Your task to perform on an android device: open chrome privacy settings Image 0: 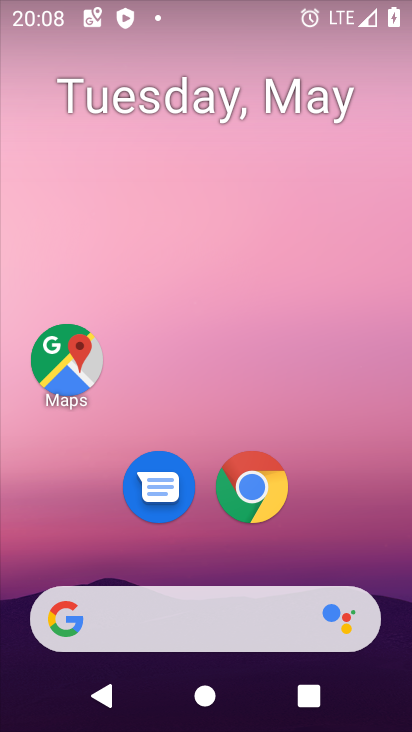
Step 0: click (252, 488)
Your task to perform on an android device: open chrome privacy settings Image 1: 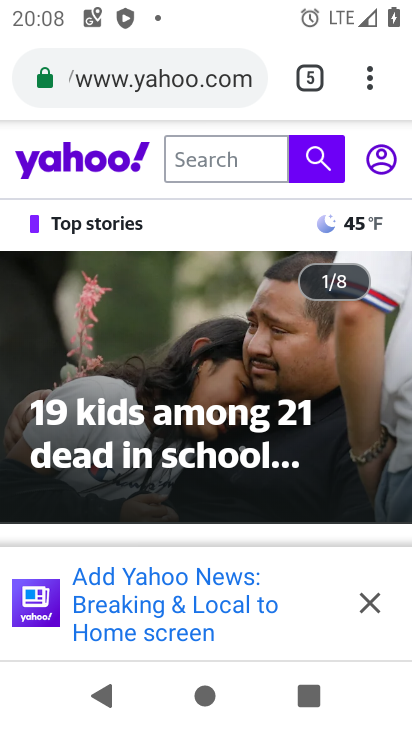
Step 1: click (370, 77)
Your task to perform on an android device: open chrome privacy settings Image 2: 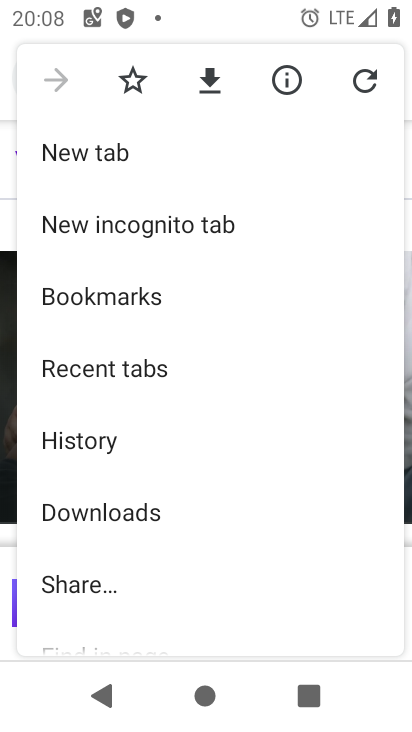
Step 2: drag from (236, 492) to (188, 220)
Your task to perform on an android device: open chrome privacy settings Image 3: 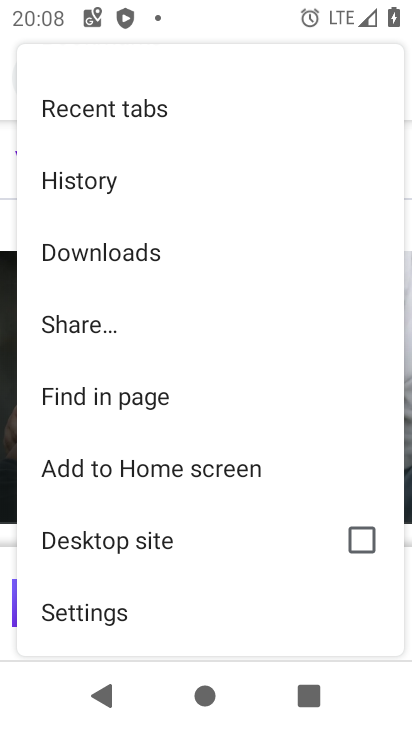
Step 3: click (77, 601)
Your task to perform on an android device: open chrome privacy settings Image 4: 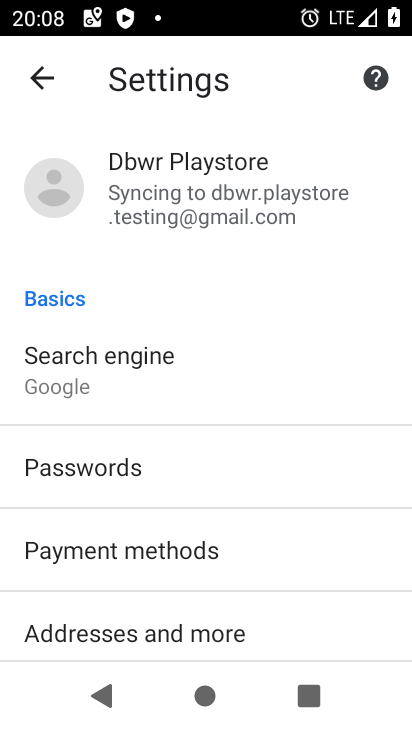
Step 4: drag from (311, 527) to (240, 269)
Your task to perform on an android device: open chrome privacy settings Image 5: 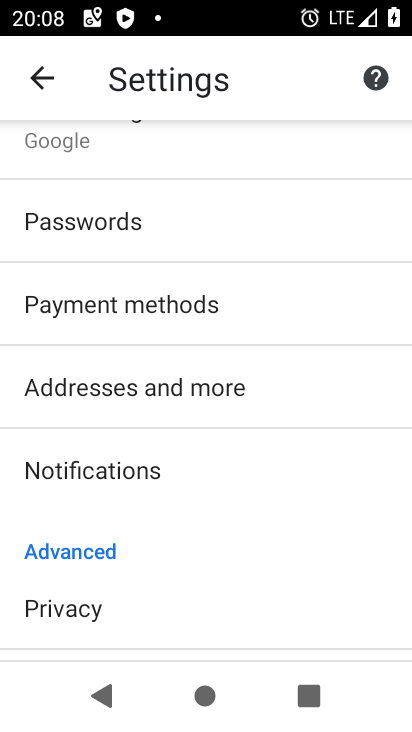
Step 5: click (84, 618)
Your task to perform on an android device: open chrome privacy settings Image 6: 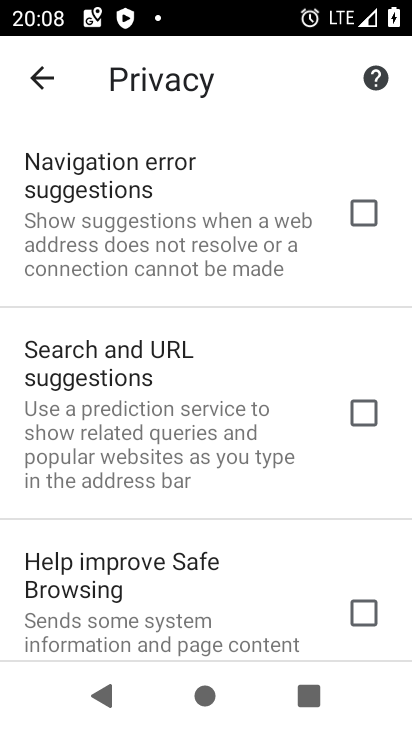
Step 6: task complete